Your task to perform on an android device: open a new tab in the chrome app Image 0: 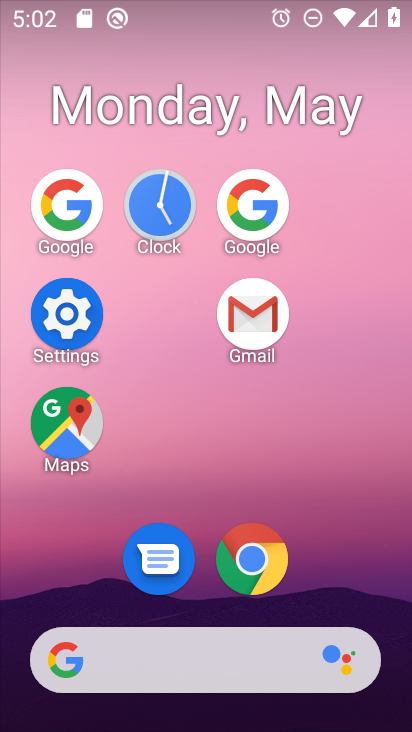
Step 0: click (247, 562)
Your task to perform on an android device: open a new tab in the chrome app Image 1: 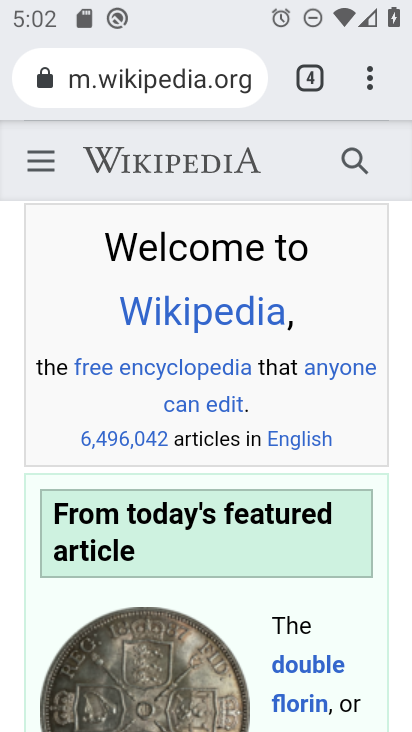
Step 1: click (304, 91)
Your task to perform on an android device: open a new tab in the chrome app Image 2: 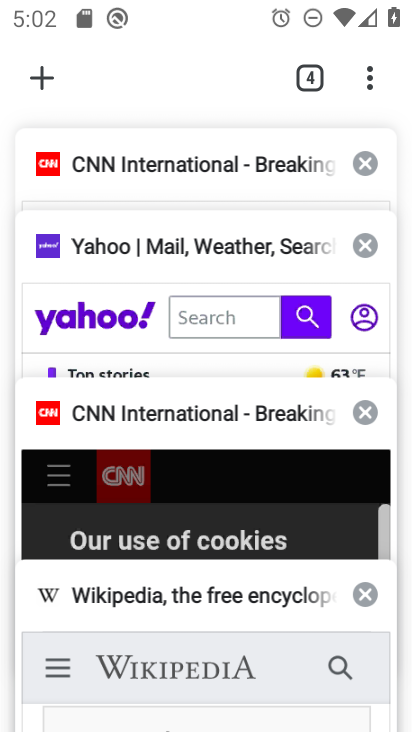
Step 2: click (37, 74)
Your task to perform on an android device: open a new tab in the chrome app Image 3: 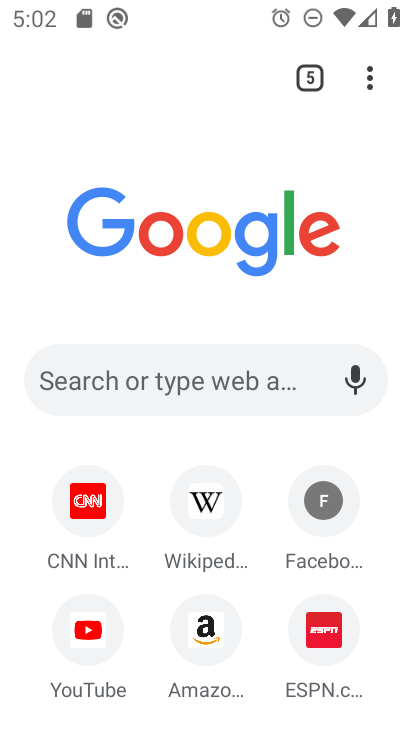
Step 3: click (315, 60)
Your task to perform on an android device: open a new tab in the chrome app Image 4: 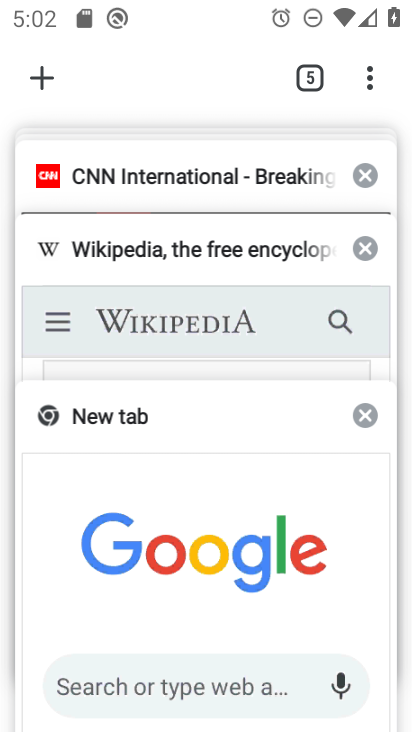
Step 4: click (34, 79)
Your task to perform on an android device: open a new tab in the chrome app Image 5: 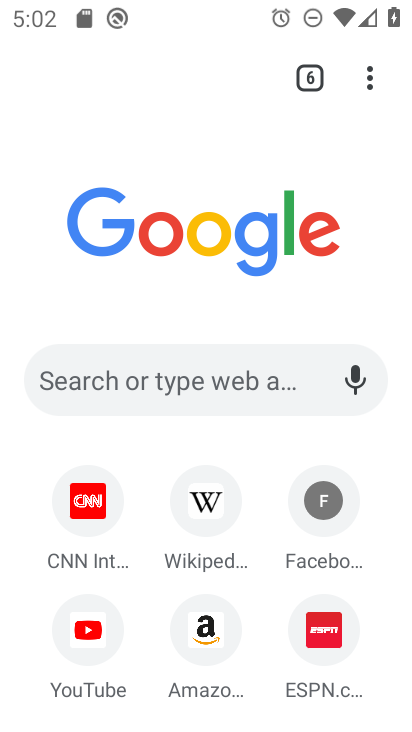
Step 5: task complete